Your task to perform on an android device: Search for vegetarian restaurants on Maps Image 0: 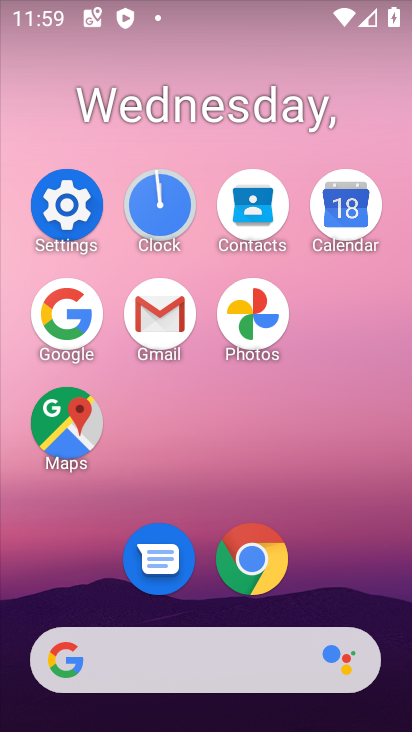
Step 0: click (71, 385)
Your task to perform on an android device: Search for vegetarian restaurants on Maps Image 1: 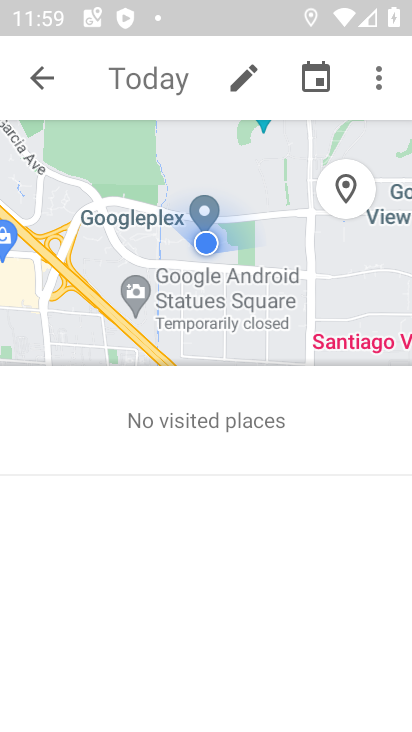
Step 1: click (152, 92)
Your task to perform on an android device: Search for vegetarian restaurants on Maps Image 2: 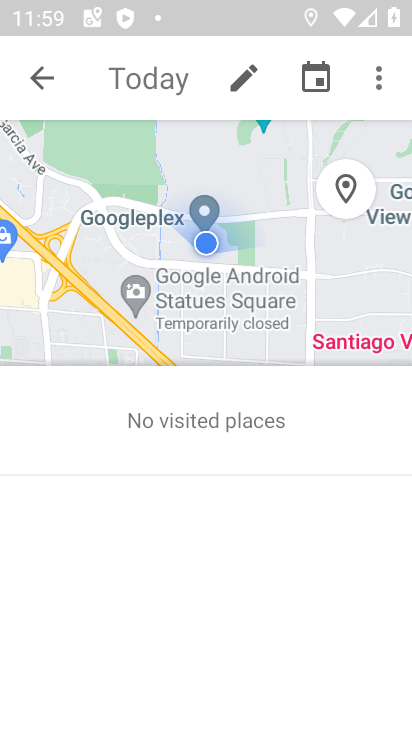
Step 2: click (52, 70)
Your task to perform on an android device: Search for vegetarian restaurants on Maps Image 3: 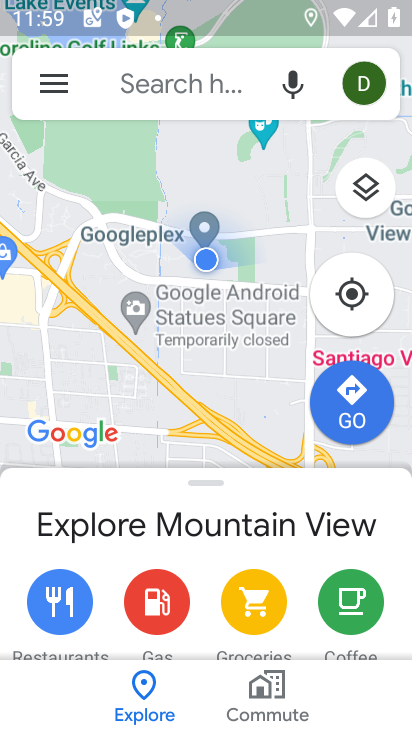
Step 3: click (174, 87)
Your task to perform on an android device: Search for vegetarian restaurants on Maps Image 4: 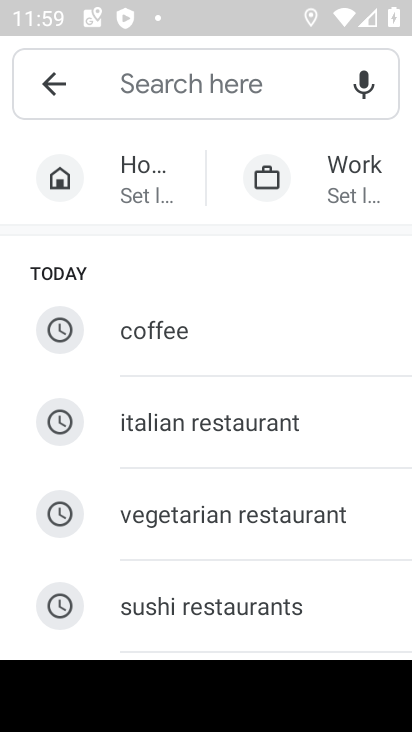
Step 4: click (297, 506)
Your task to perform on an android device: Search for vegetarian restaurants on Maps Image 5: 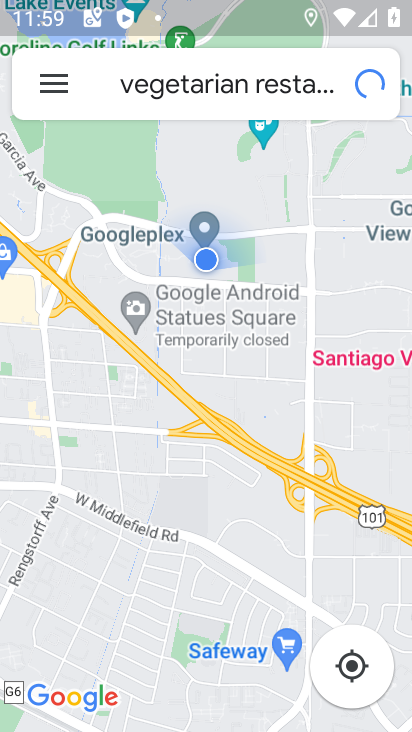
Step 5: task complete